Your task to perform on an android device: install app "Pluto TV - Live TV and Movies" Image 0: 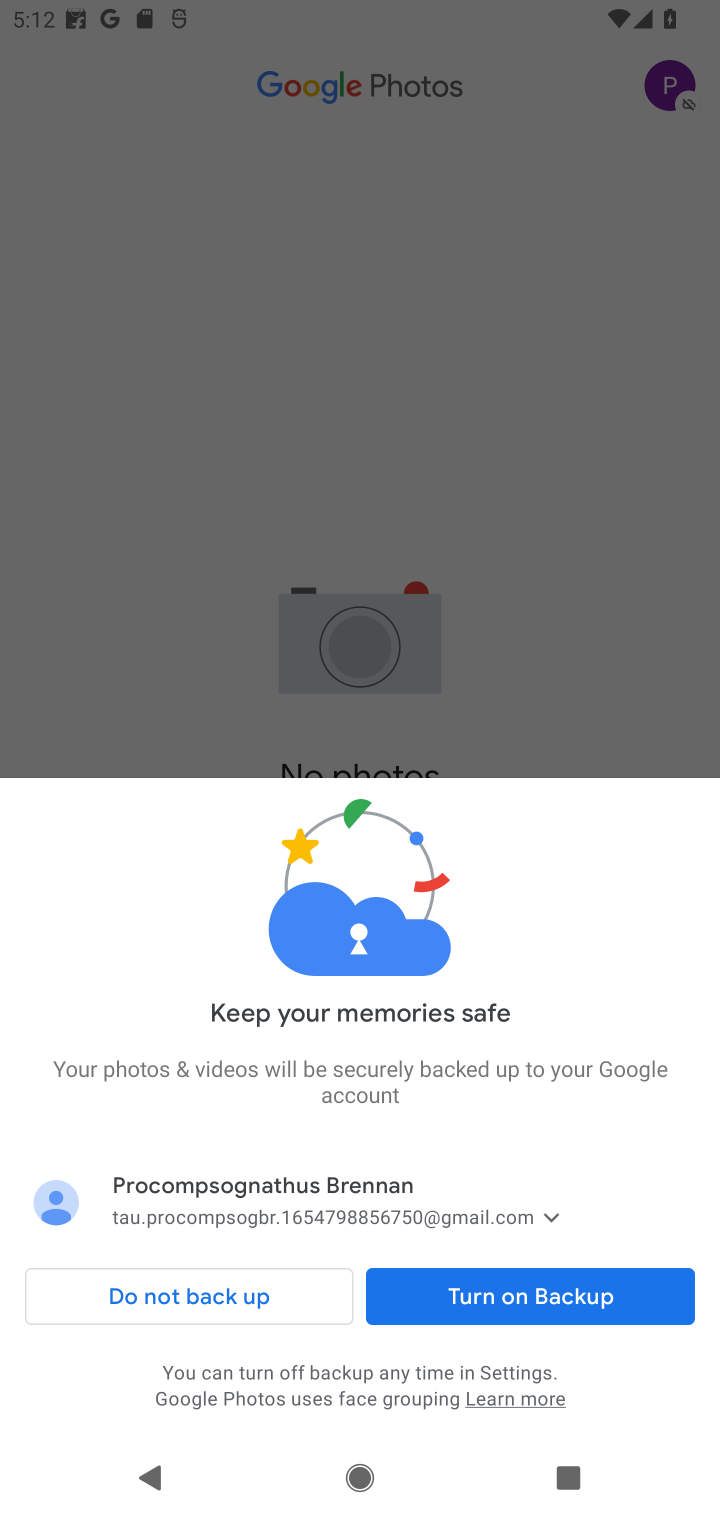
Step 0: click (118, 1296)
Your task to perform on an android device: install app "Pluto TV - Live TV and Movies" Image 1: 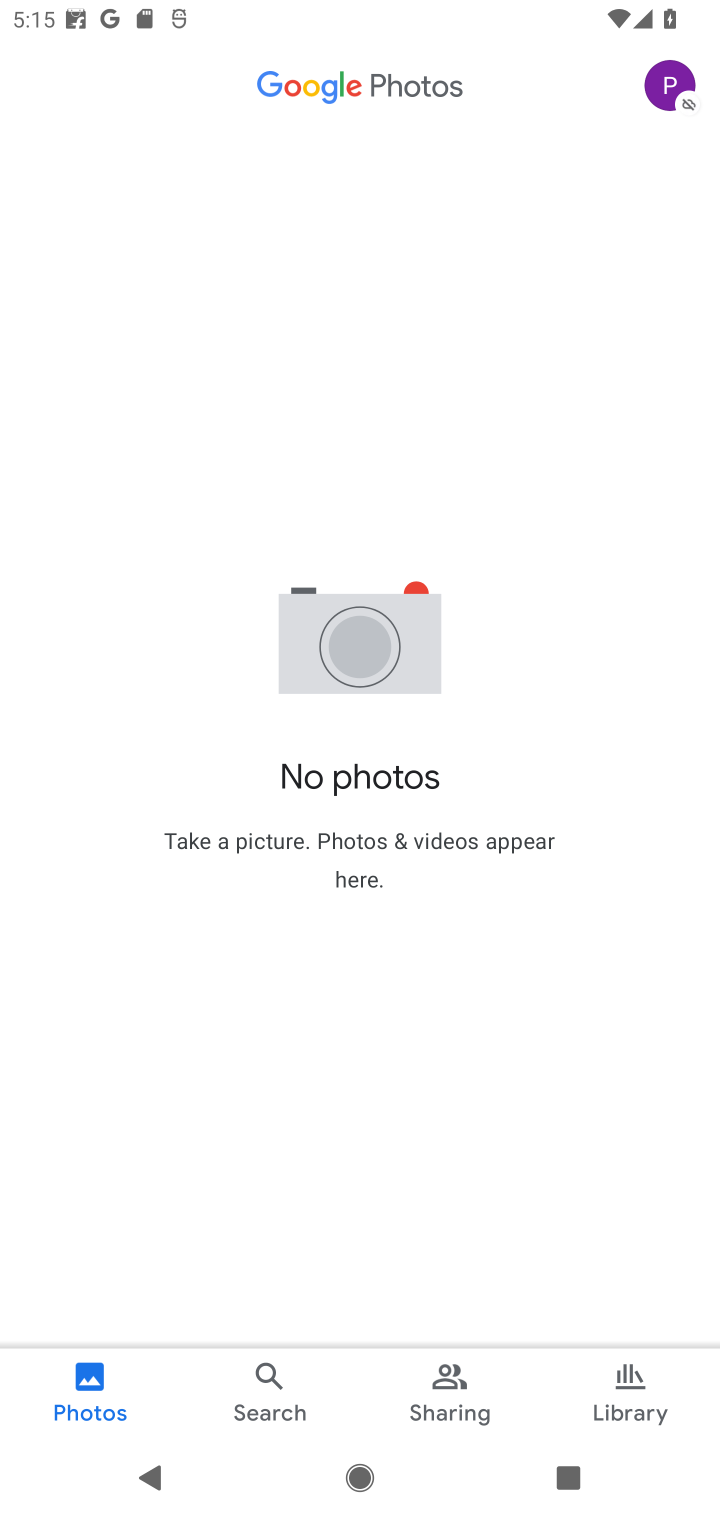
Step 1: press home button
Your task to perform on an android device: install app "Pluto TV - Live TV and Movies" Image 2: 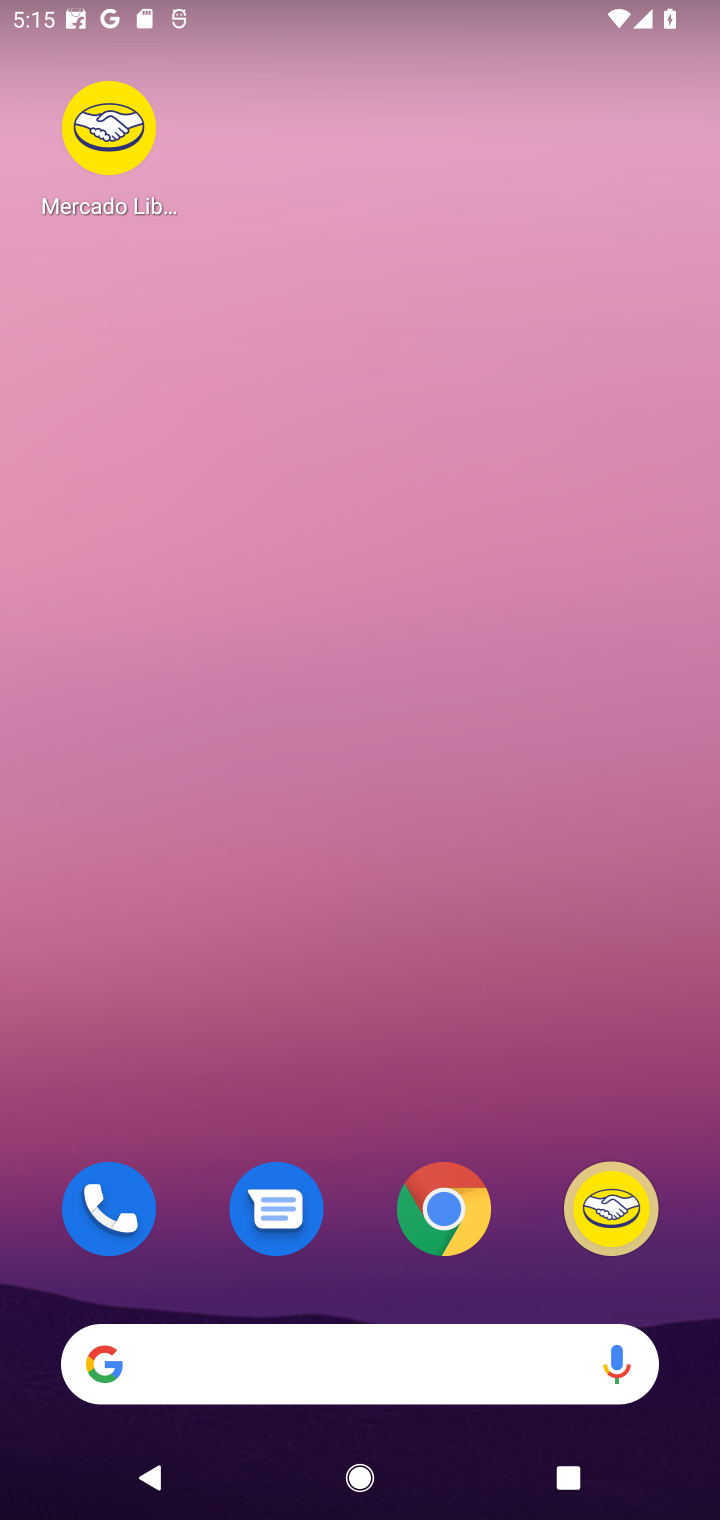
Step 2: drag from (334, 1278) to (485, 96)
Your task to perform on an android device: install app "Pluto TV - Live TV and Movies" Image 3: 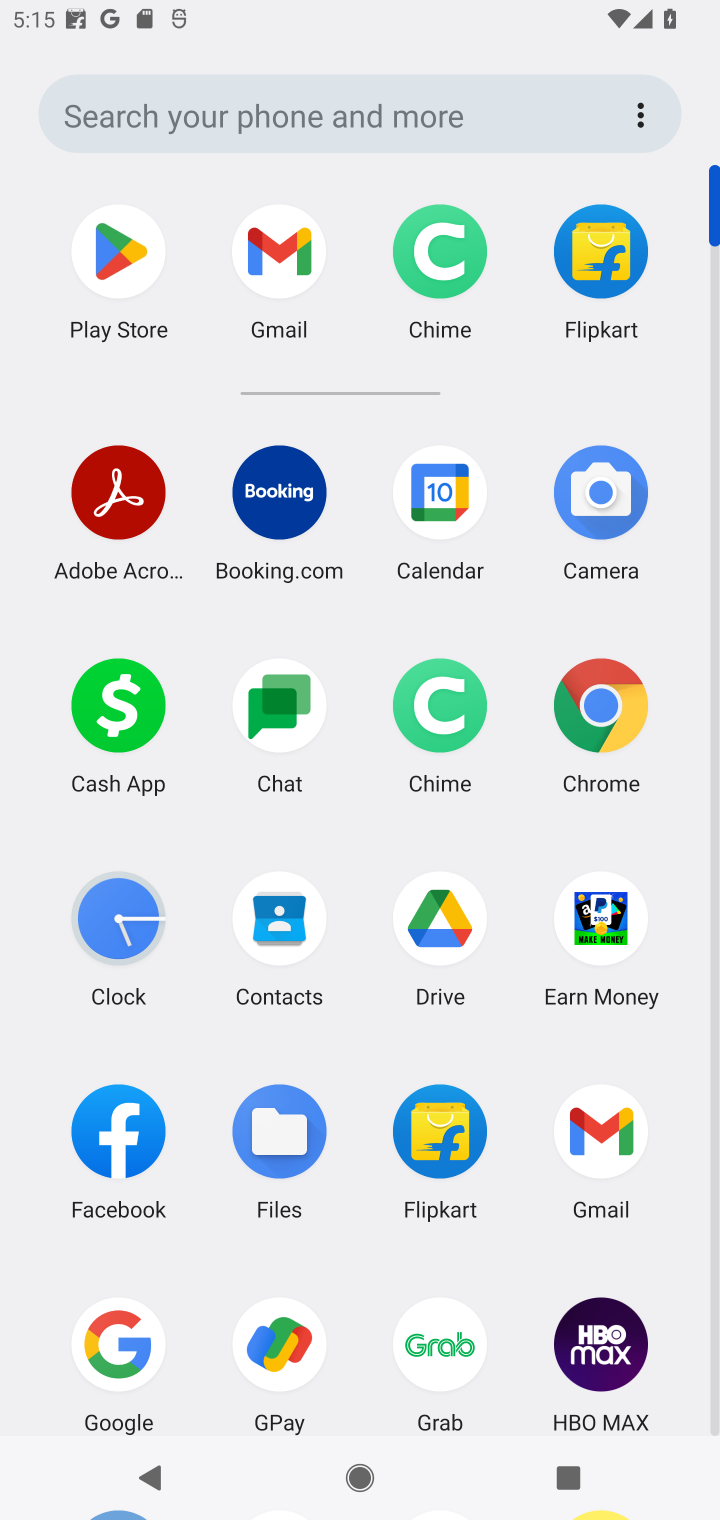
Step 3: click (485, 96)
Your task to perform on an android device: install app "Pluto TV - Live TV and Movies" Image 4: 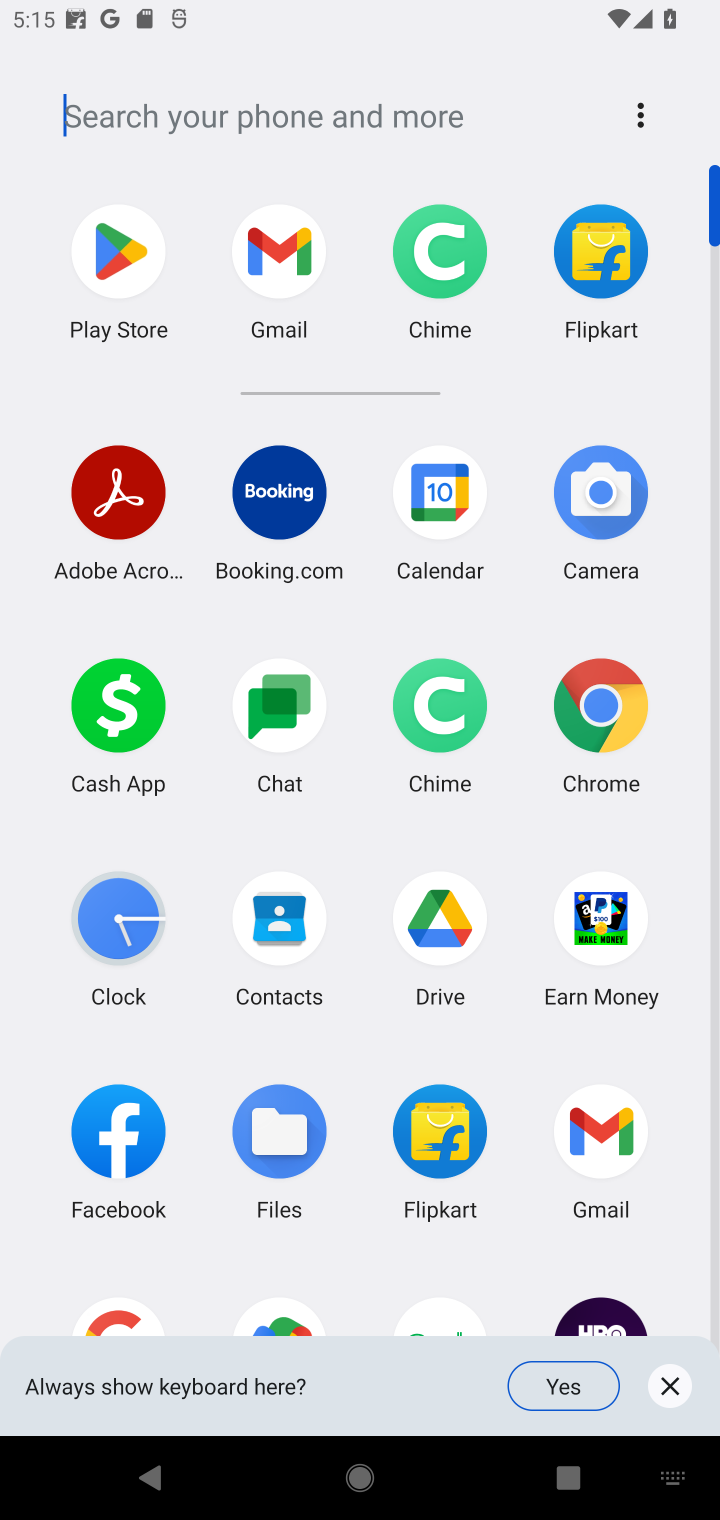
Step 4: click (140, 259)
Your task to perform on an android device: install app "Pluto TV - Live TV and Movies" Image 5: 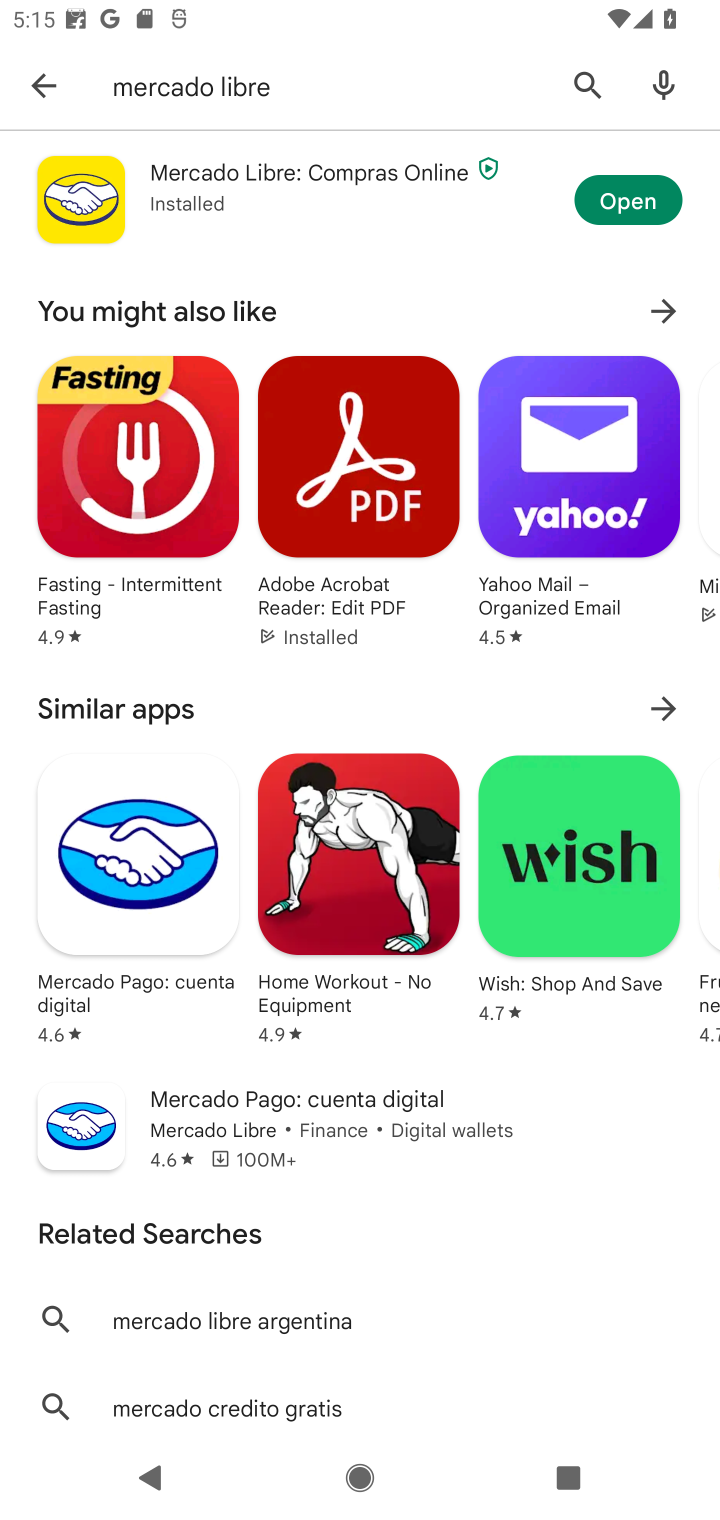
Step 5: click (592, 80)
Your task to perform on an android device: install app "Pluto TV - Live TV and Movies" Image 6: 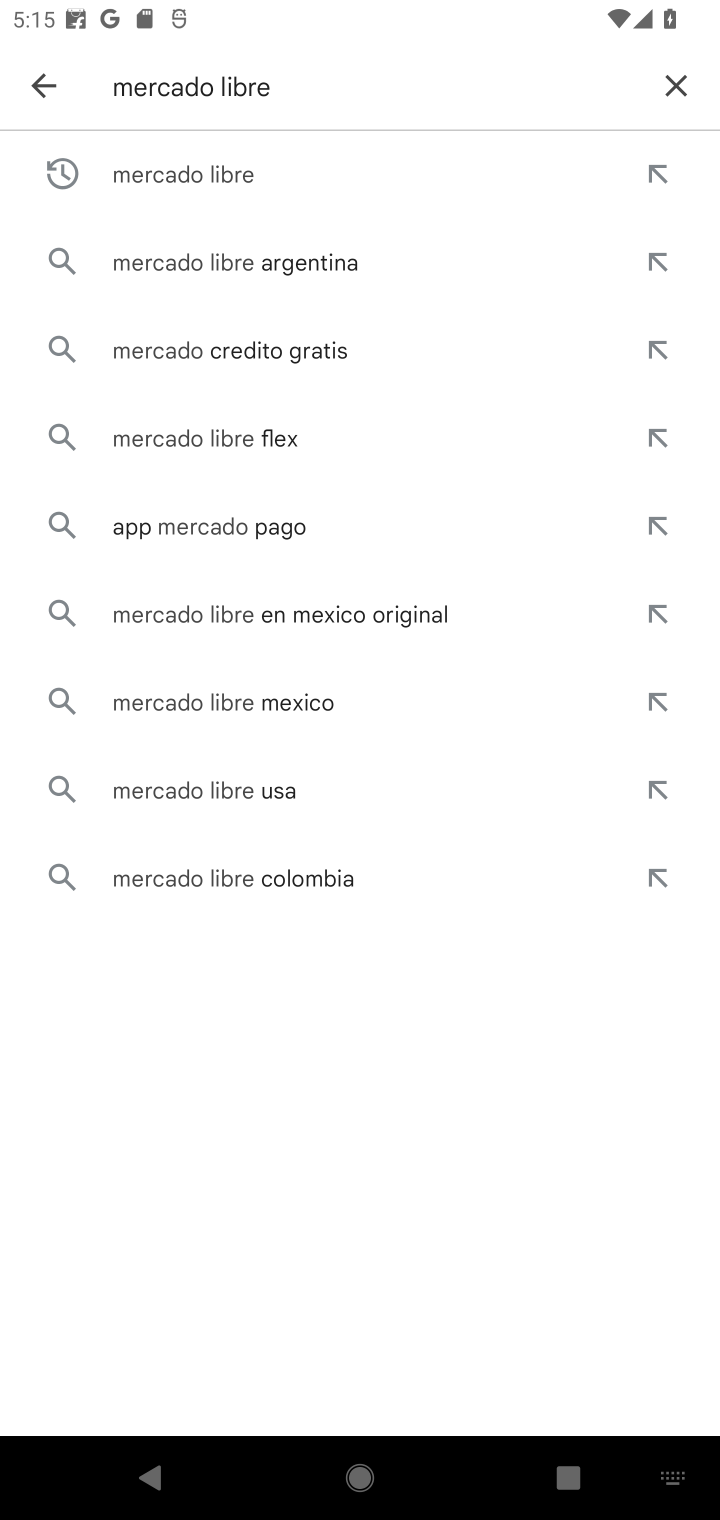
Step 6: click (648, 83)
Your task to perform on an android device: install app "Pluto TV - Live TV and Movies" Image 7: 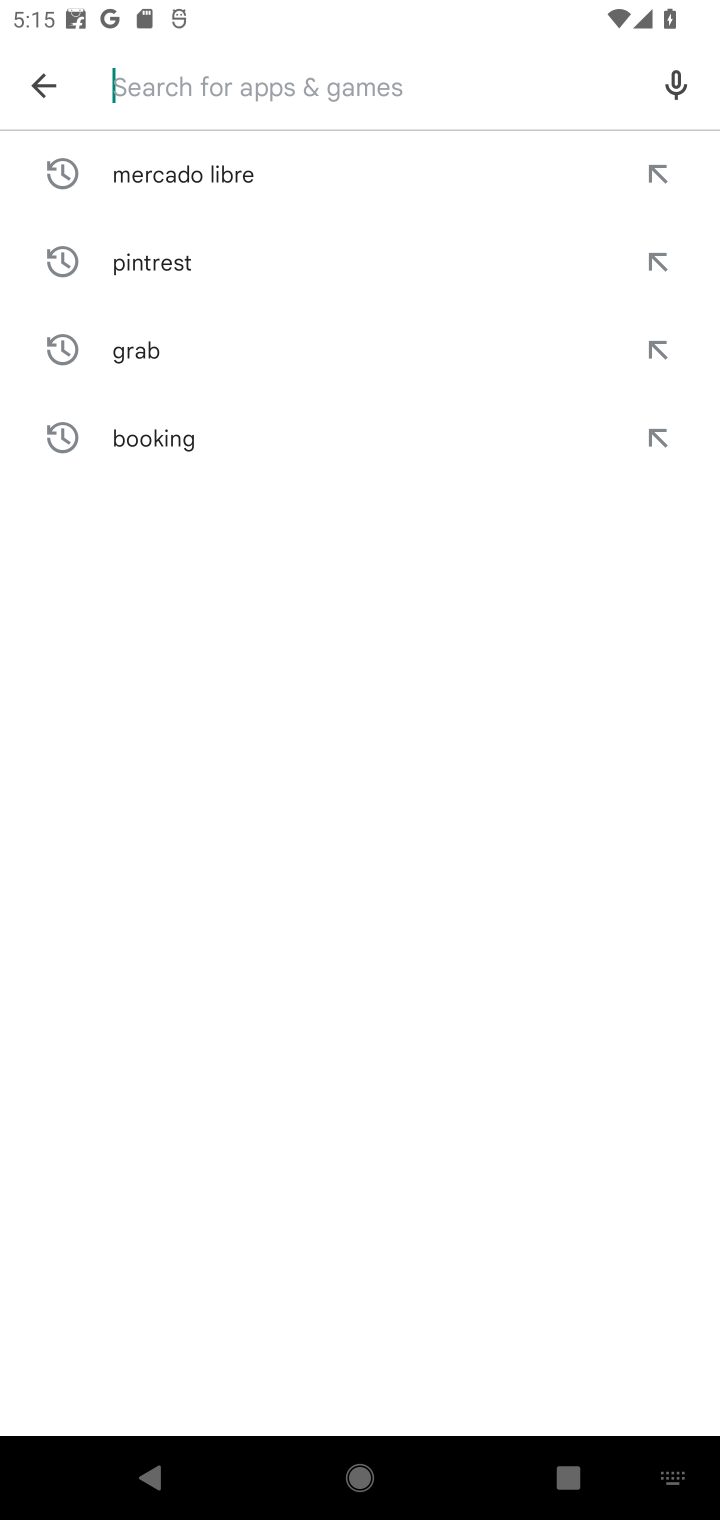
Step 7: type "pluto"
Your task to perform on an android device: install app "Pluto TV - Live TV and Movies" Image 8: 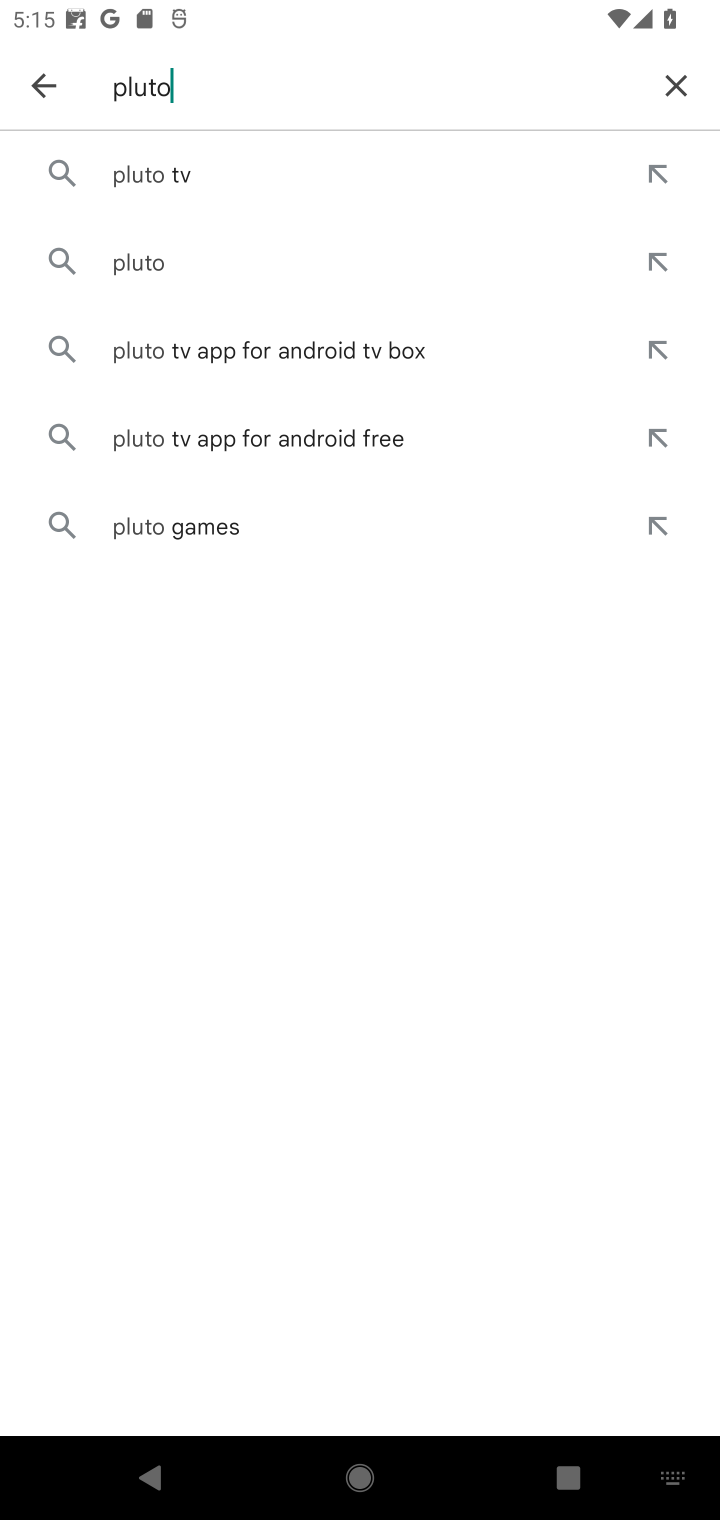
Step 8: click (126, 190)
Your task to perform on an android device: install app "Pluto TV - Live TV and Movies" Image 9: 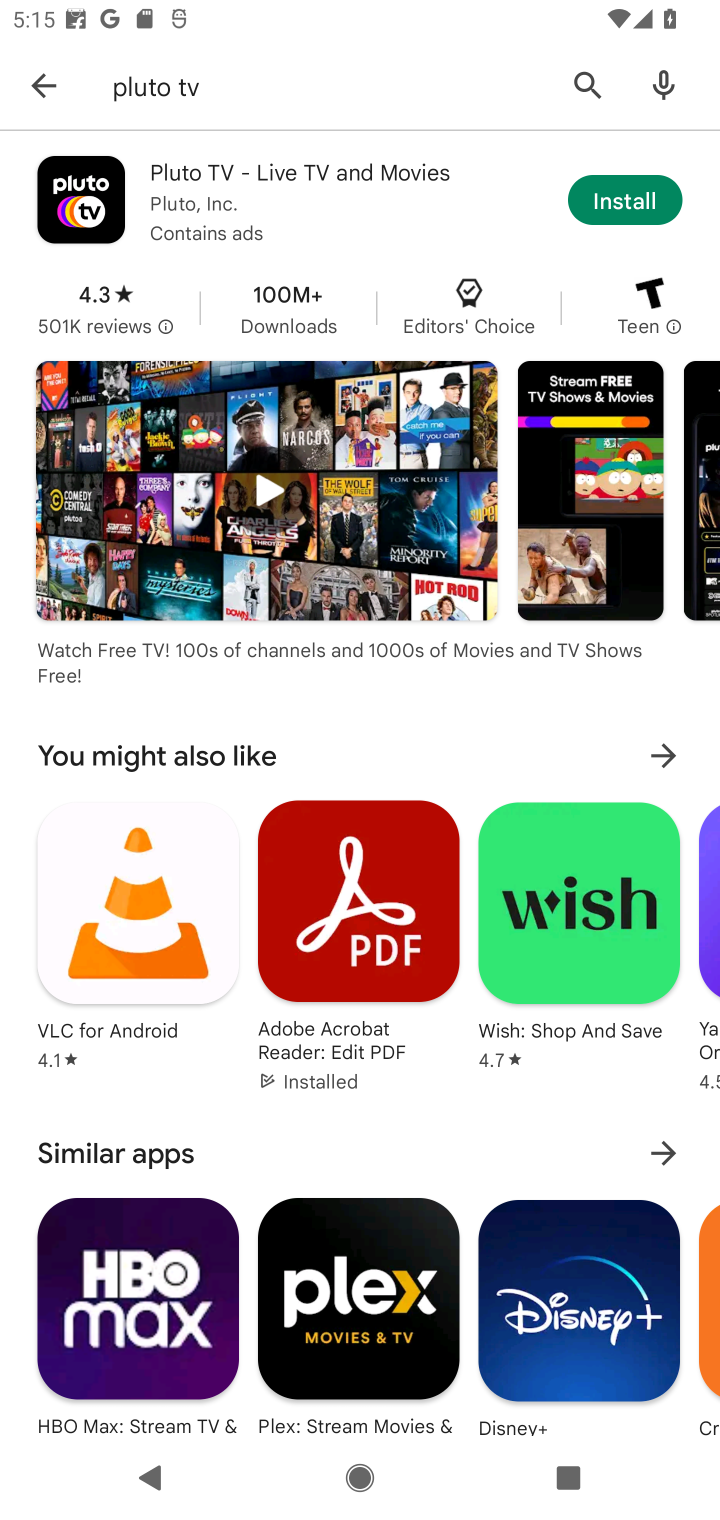
Step 9: click (594, 189)
Your task to perform on an android device: install app "Pluto TV - Live TV and Movies" Image 10: 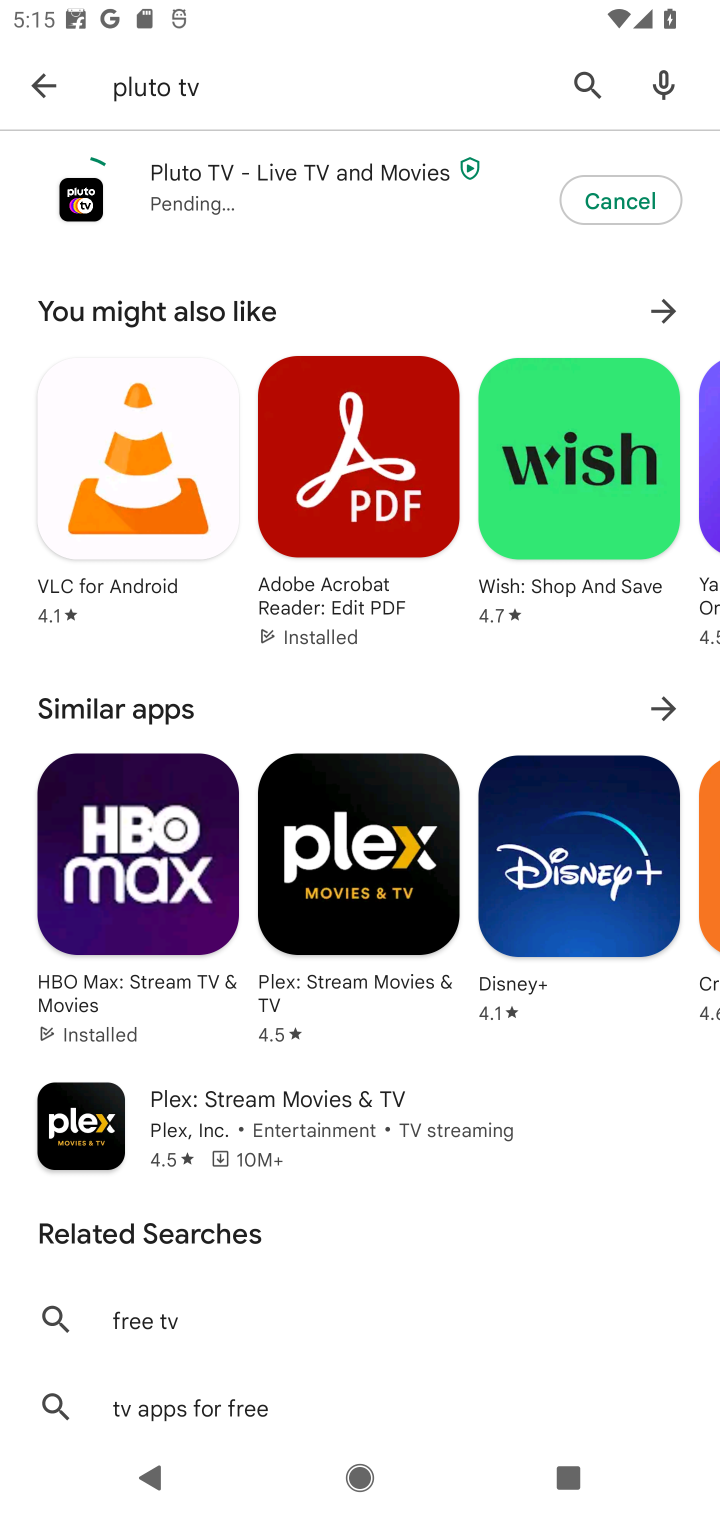
Step 10: task complete